Your task to perform on an android device: See recent photos Image 0: 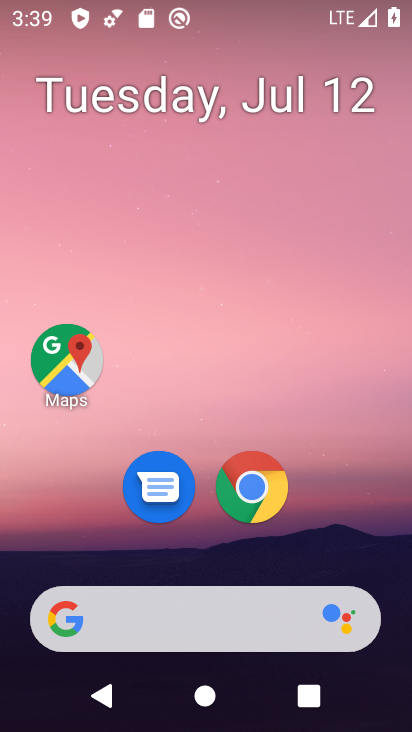
Step 0: drag from (256, 515) to (265, 156)
Your task to perform on an android device: See recent photos Image 1: 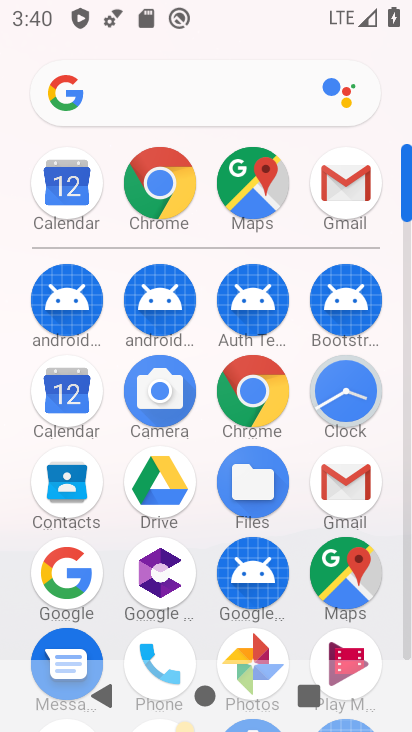
Step 1: drag from (246, 465) to (319, 77)
Your task to perform on an android device: See recent photos Image 2: 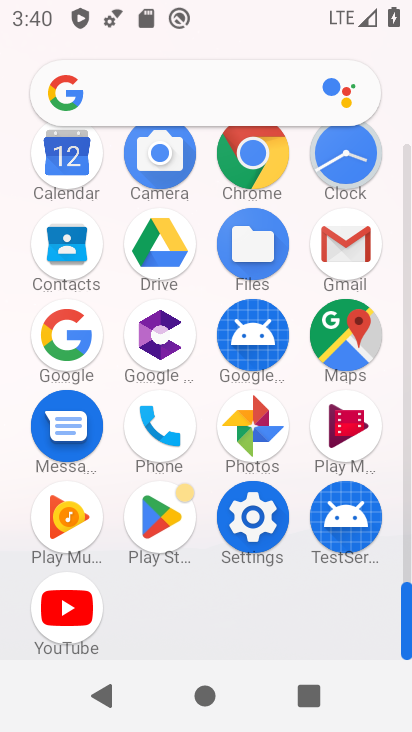
Step 2: click (250, 455)
Your task to perform on an android device: See recent photos Image 3: 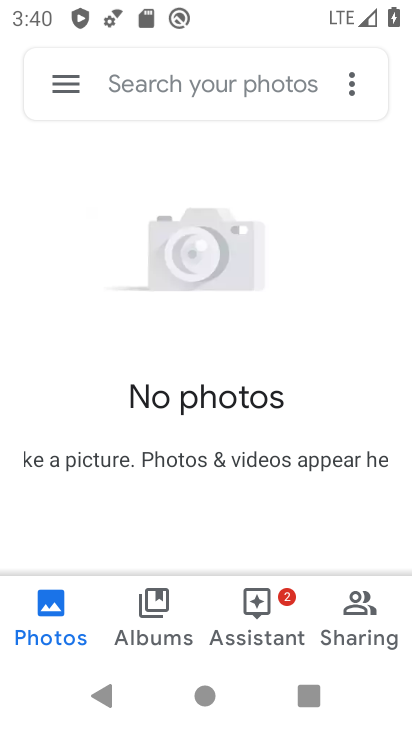
Step 3: task complete